Your task to perform on an android device: add a label to a message in the gmail app Image 0: 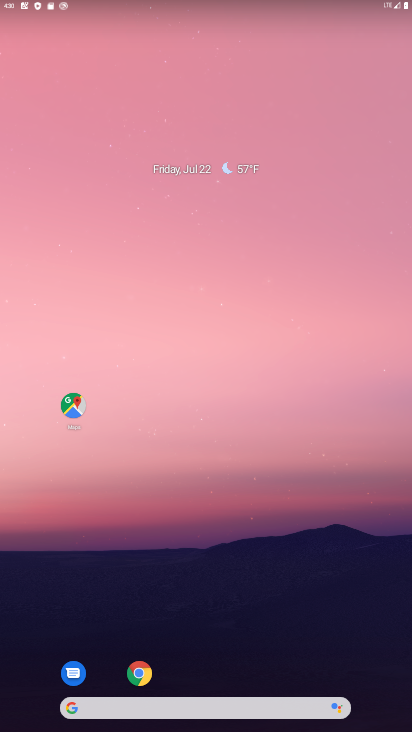
Step 0: drag from (289, 663) to (260, 178)
Your task to perform on an android device: add a label to a message in the gmail app Image 1: 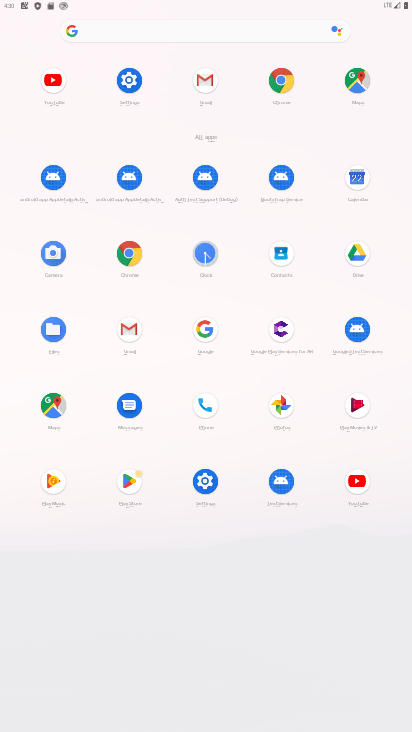
Step 1: click (129, 324)
Your task to perform on an android device: add a label to a message in the gmail app Image 2: 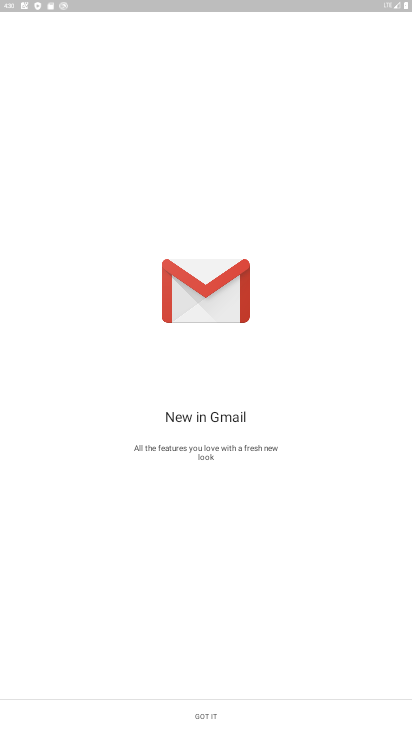
Step 2: click (204, 716)
Your task to perform on an android device: add a label to a message in the gmail app Image 3: 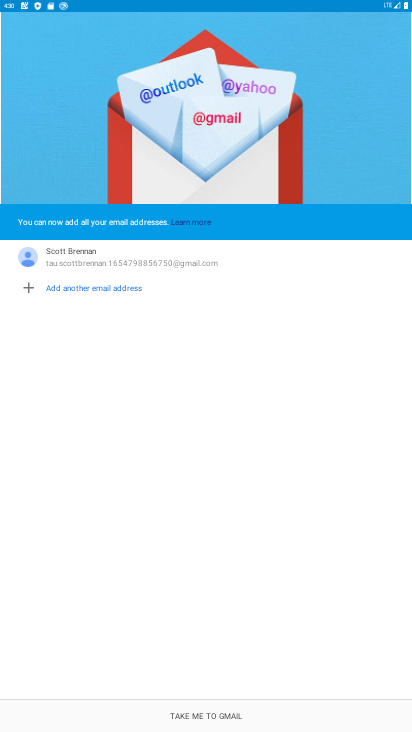
Step 3: click (204, 716)
Your task to perform on an android device: add a label to a message in the gmail app Image 4: 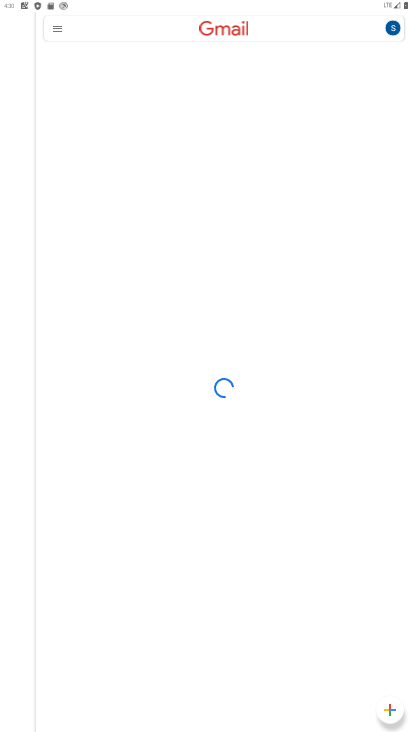
Step 4: click (55, 30)
Your task to perform on an android device: add a label to a message in the gmail app Image 5: 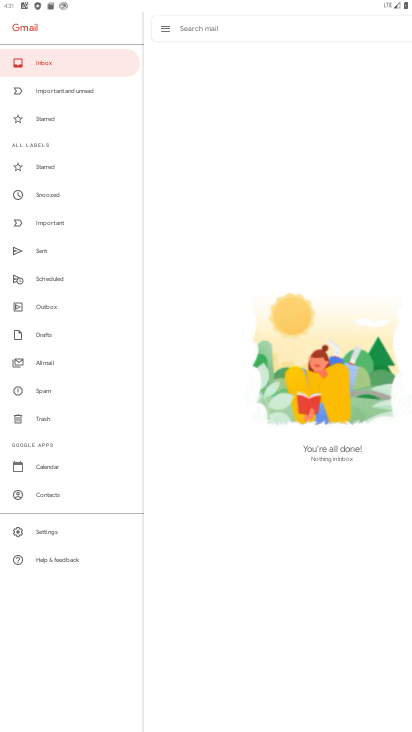
Step 5: click (37, 361)
Your task to perform on an android device: add a label to a message in the gmail app Image 6: 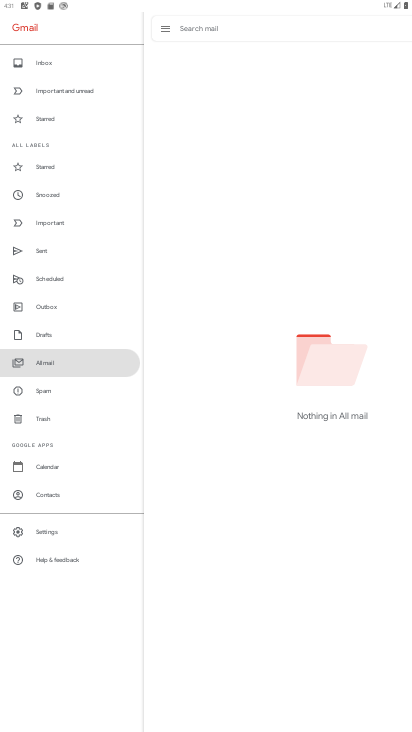
Step 6: task complete